Your task to perform on an android device: Do I have any events this weekend? Image 0: 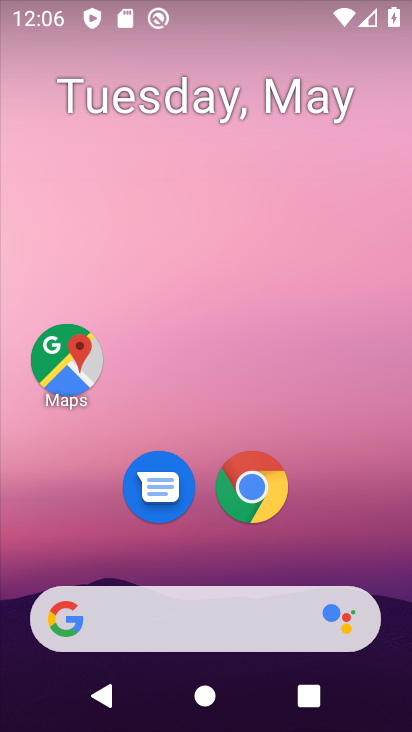
Step 0: drag from (335, 548) to (245, 6)
Your task to perform on an android device: Do I have any events this weekend? Image 1: 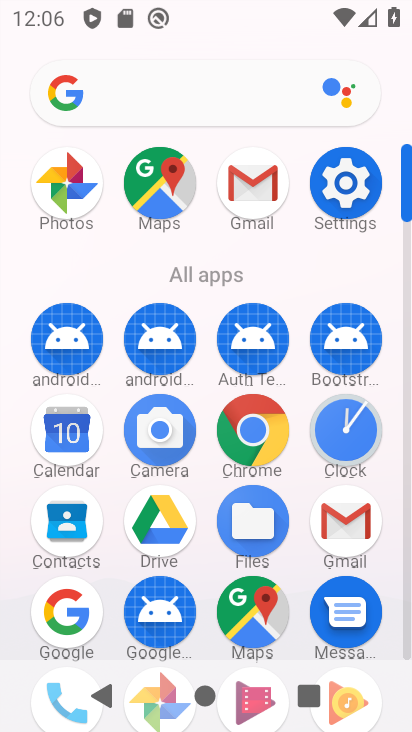
Step 1: drag from (18, 591) to (1, 263)
Your task to perform on an android device: Do I have any events this weekend? Image 2: 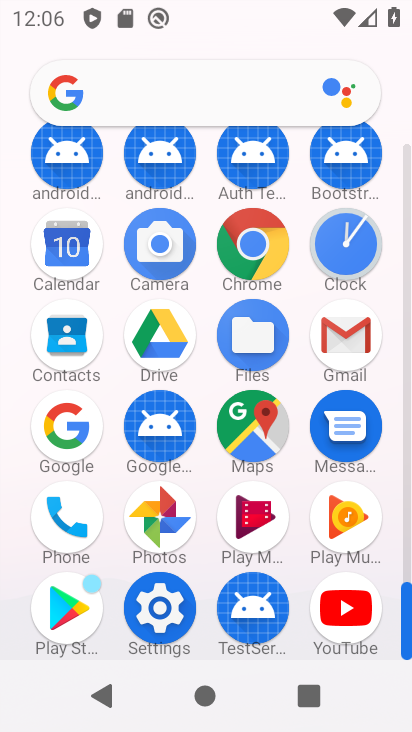
Step 2: click (70, 235)
Your task to perform on an android device: Do I have any events this weekend? Image 3: 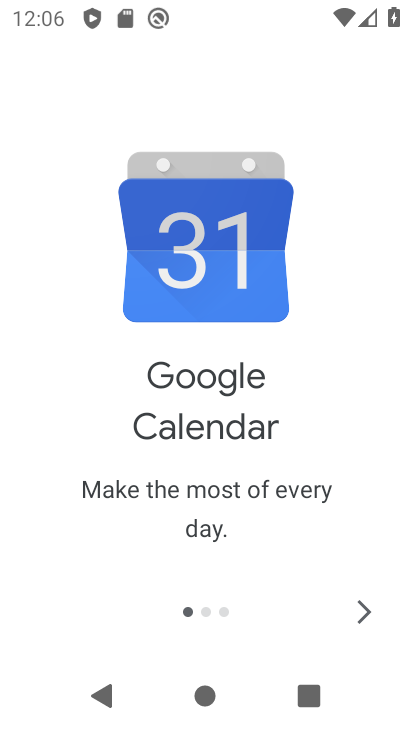
Step 3: click (361, 615)
Your task to perform on an android device: Do I have any events this weekend? Image 4: 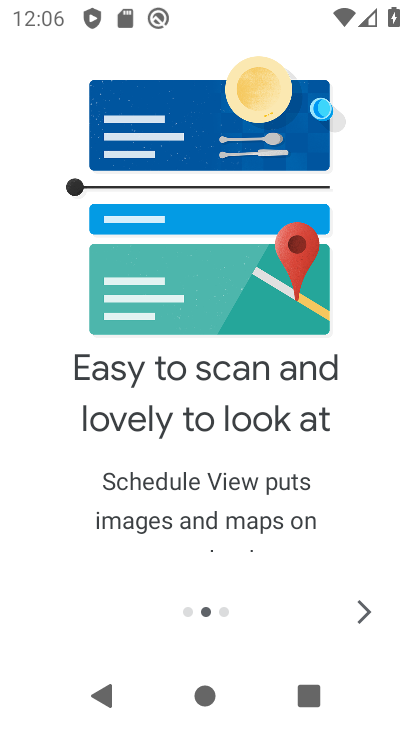
Step 4: click (361, 615)
Your task to perform on an android device: Do I have any events this weekend? Image 5: 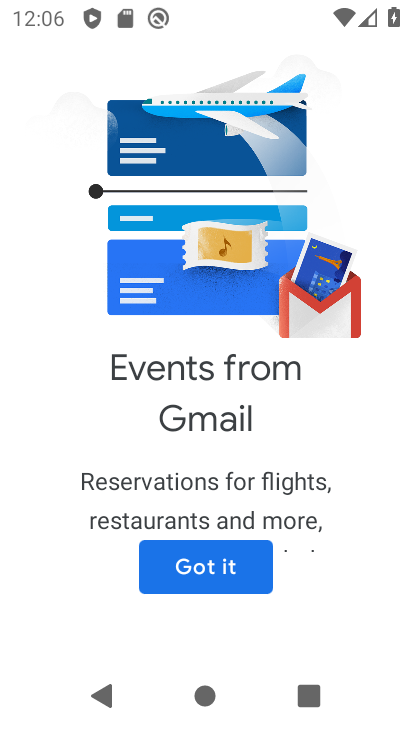
Step 5: click (210, 565)
Your task to perform on an android device: Do I have any events this weekend? Image 6: 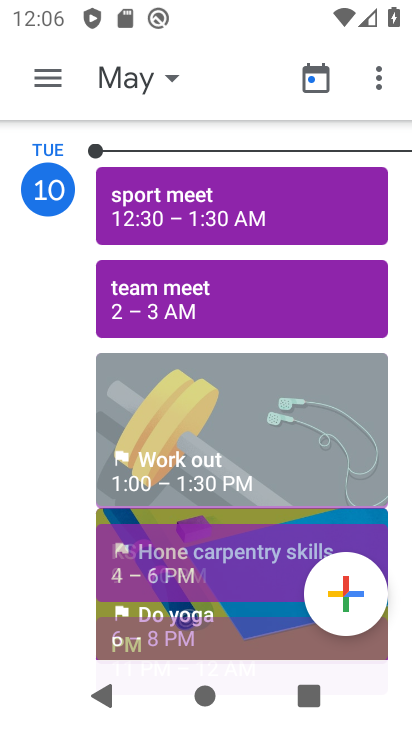
Step 6: click (37, 79)
Your task to perform on an android device: Do I have any events this weekend? Image 7: 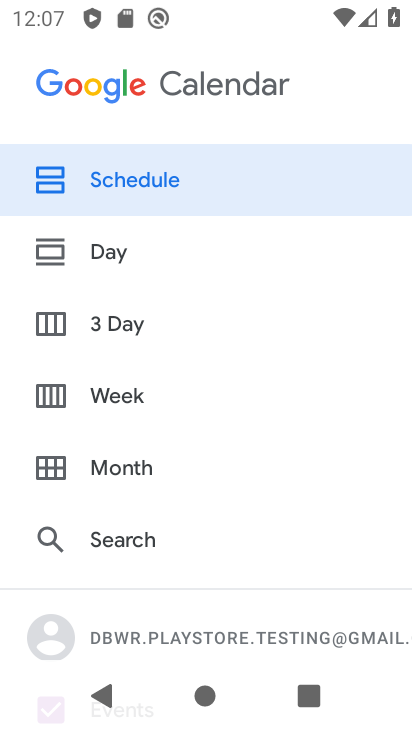
Step 7: click (124, 388)
Your task to perform on an android device: Do I have any events this weekend? Image 8: 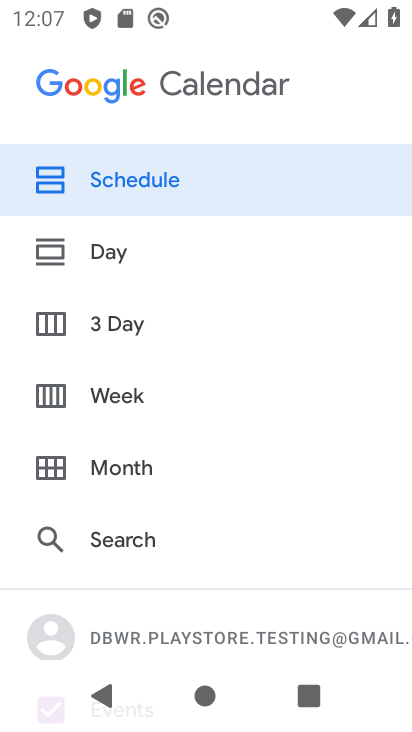
Step 8: click (124, 388)
Your task to perform on an android device: Do I have any events this weekend? Image 9: 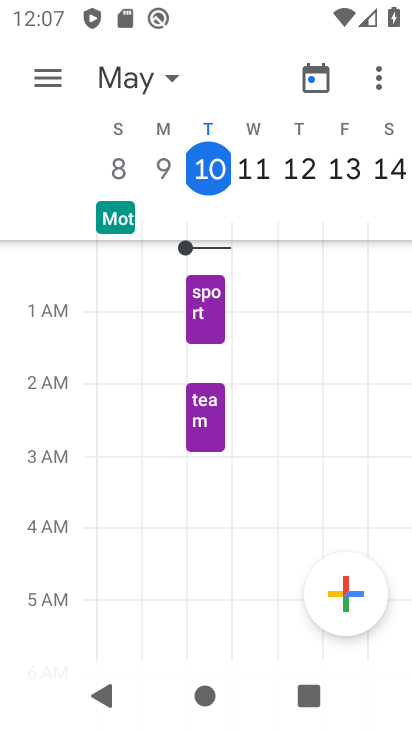
Step 9: click (380, 161)
Your task to perform on an android device: Do I have any events this weekend? Image 10: 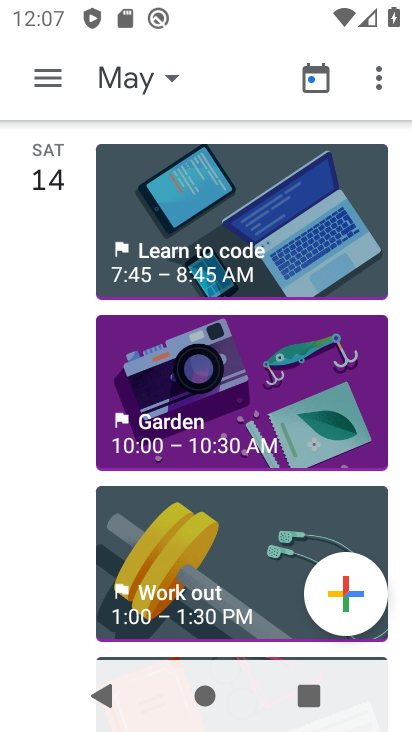
Step 10: task complete